Your task to perform on an android device: Go to settings Image 0: 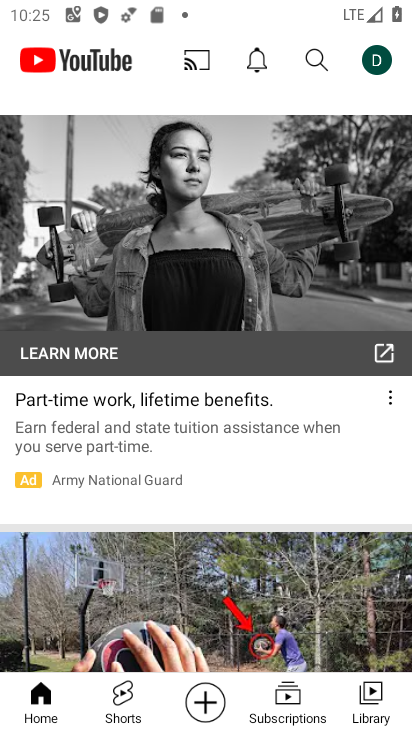
Step 0: press home button
Your task to perform on an android device: Go to settings Image 1: 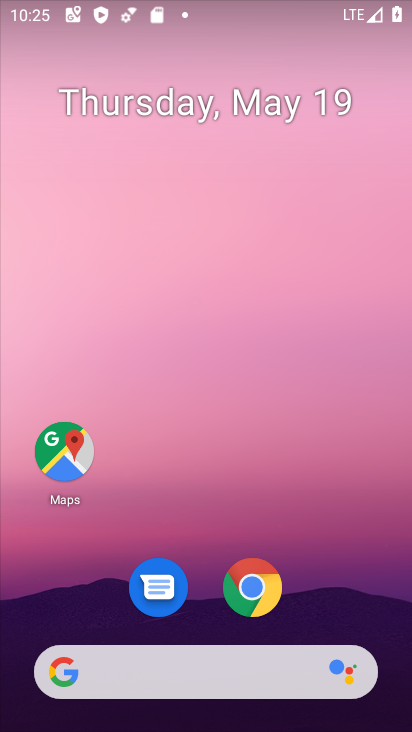
Step 1: drag from (193, 636) to (173, 114)
Your task to perform on an android device: Go to settings Image 2: 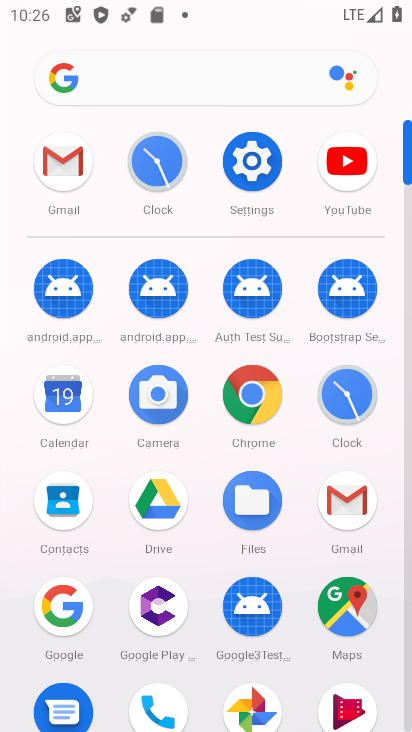
Step 2: click (242, 175)
Your task to perform on an android device: Go to settings Image 3: 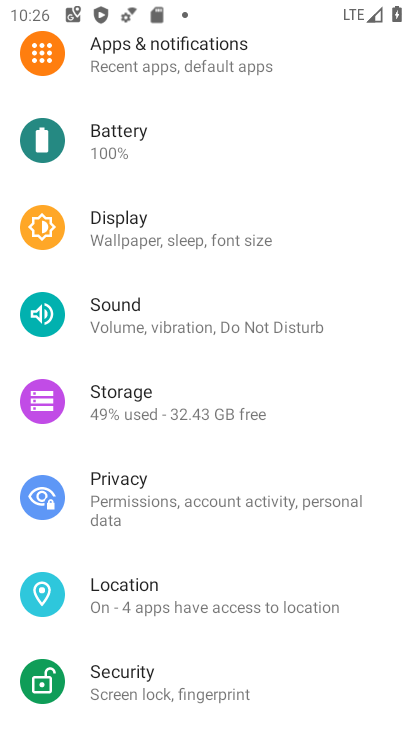
Step 3: task complete